Your task to perform on an android device: check google app version Image 0: 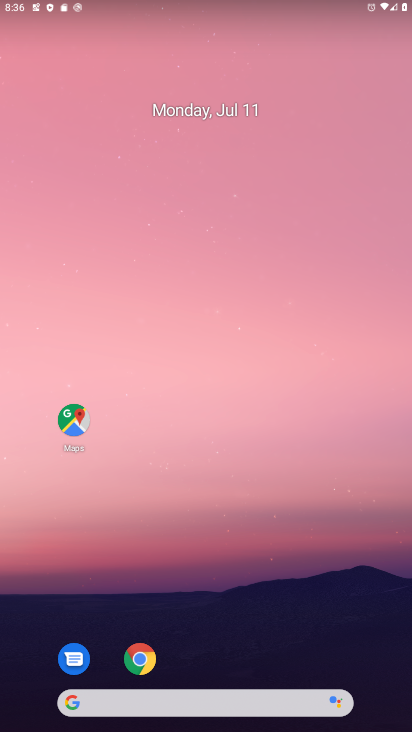
Step 0: drag from (247, 564) to (187, 133)
Your task to perform on an android device: check google app version Image 1: 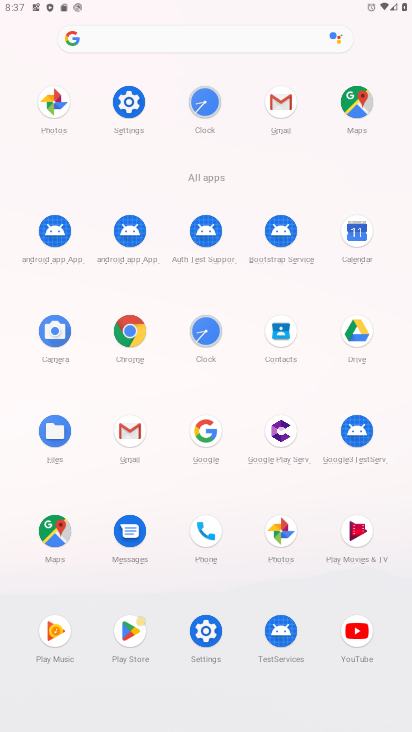
Step 1: click (206, 426)
Your task to perform on an android device: check google app version Image 2: 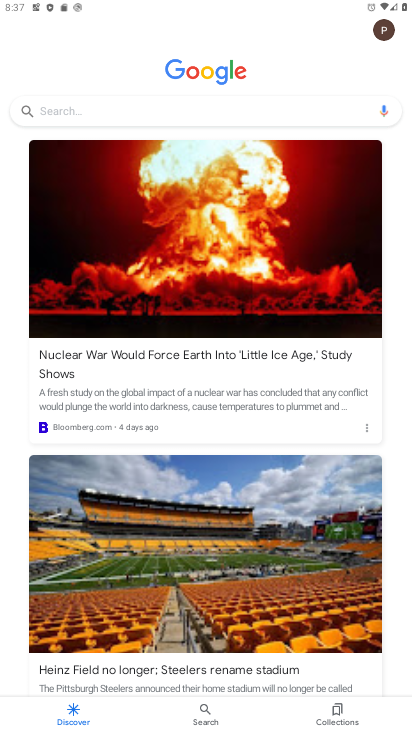
Step 2: click (386, 25)
Your task to perform on an android device: check google app version Image 3: 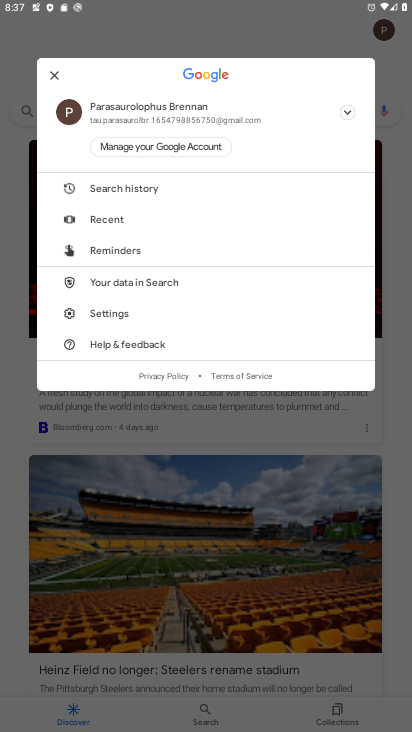
Step 3: click (106, 305)
Your task to perform on an android device: check google app version Image 4: 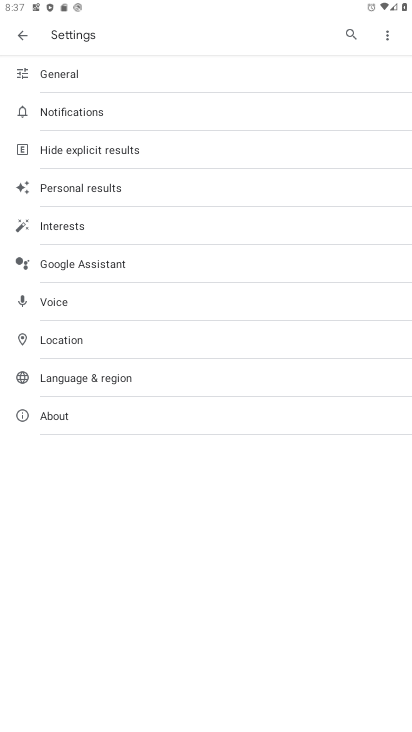
Step 4: click (59, 407)
Your task to perform on an android device: check google app version Image 5: 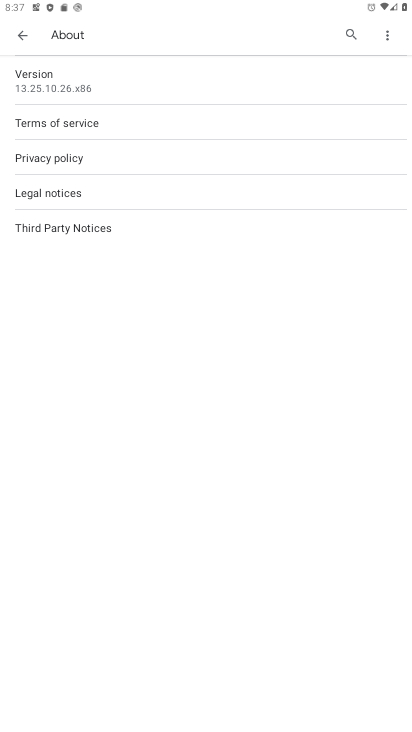
Step 5: task complete